Your task to perform on an android device: toggle show notifications on the lock screen Image 0: 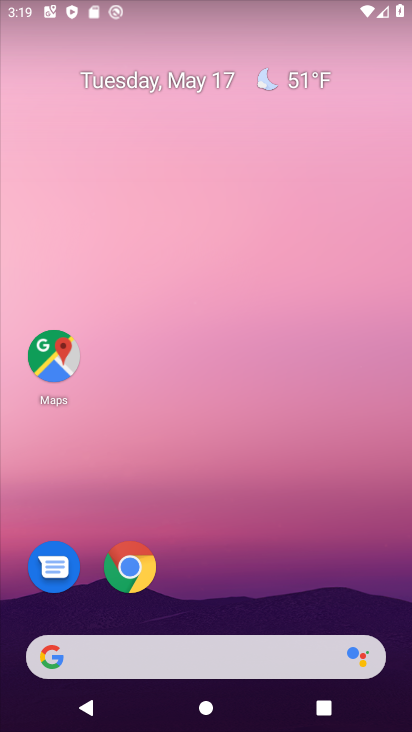
Step 0: drag from (189, 637) to (229, 96)
Your task to perform on an android device: toggle show notifications on the lock screen Image 1: 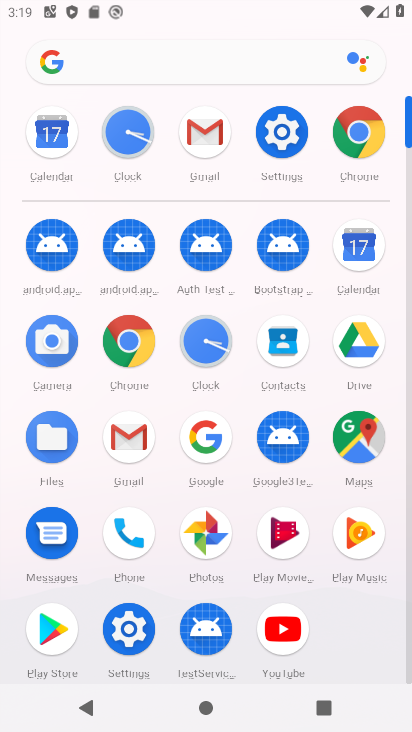
Step 1: click (276, 125)
Your task to perform on an android device: toggle show notifications on the lock screen Image 2: 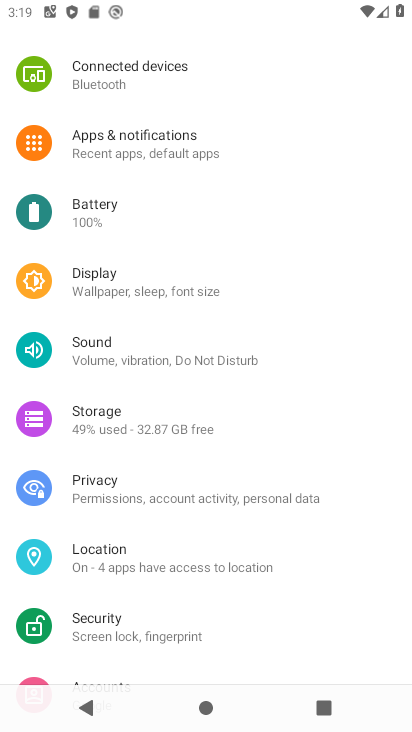
Step 2: click (118, 158)
Your task to perform on an android device: toggle show notifications on the lock screen Image 3: 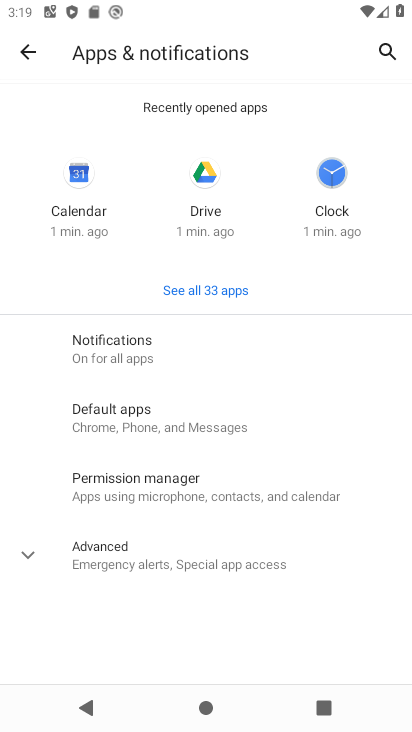
Step 3: click (82, 553)
Your task to perform on an android device: toggle show notifications on the lock screen Image 4: 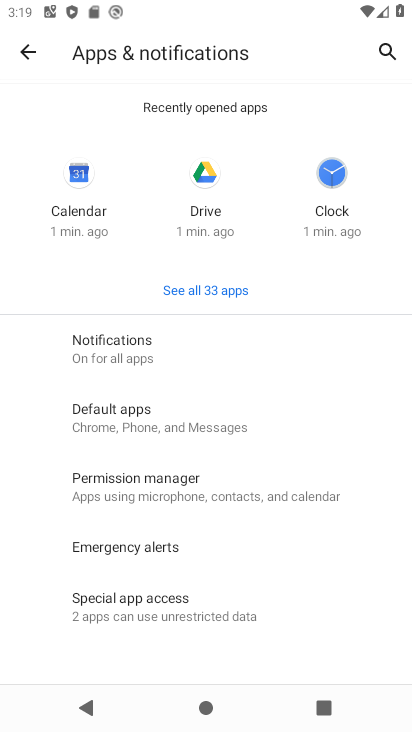
Step 4: drag from (189, 569) to (136, 362)
Your task to perform on an android device: toggle show notifications on the lock screen Image 5: 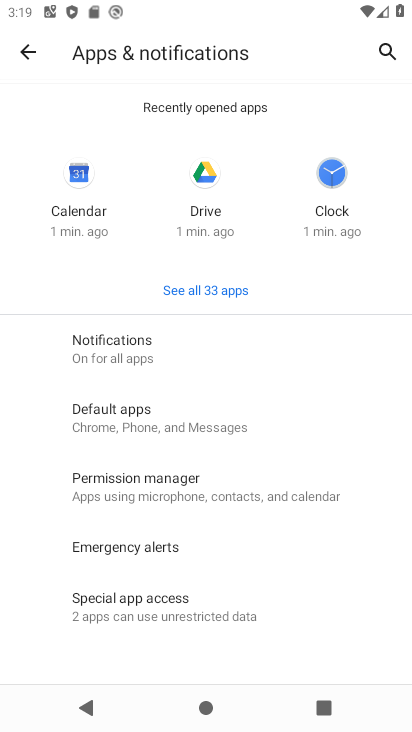
Step 5: click (134, 365)
Your task to perform on an android device: toggle show notifications on the lock screen Image 6: 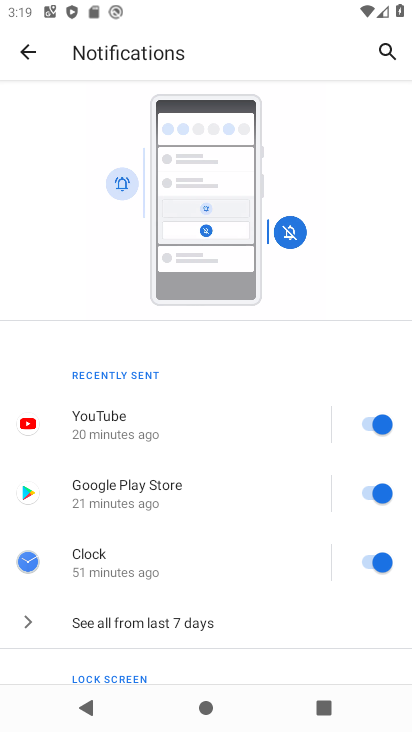
Step 6: drag from (176, 617) to (139, 164)
Your task to perform on an android device: toggle show notifications on the lock screen Image 7: 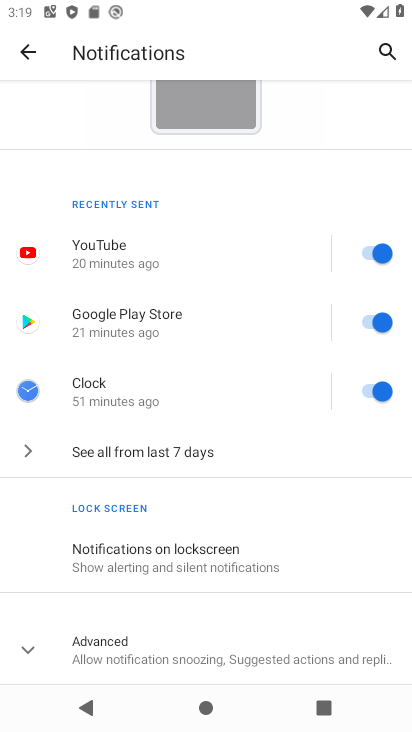
Step 7: click (179, 571)
Your task to perform on an android device: toggle show notifications on the lock screen Image 8: 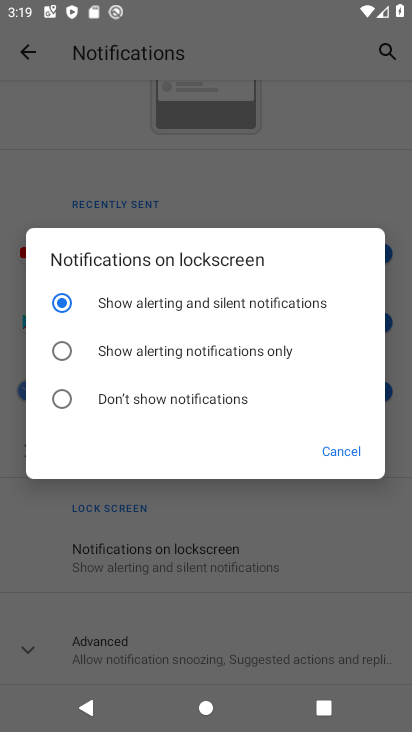
Step 8: drag from (221, 309) to (190, 360)
Your task to perform on an android device: toggle show notifications on the lock screen Image 9: 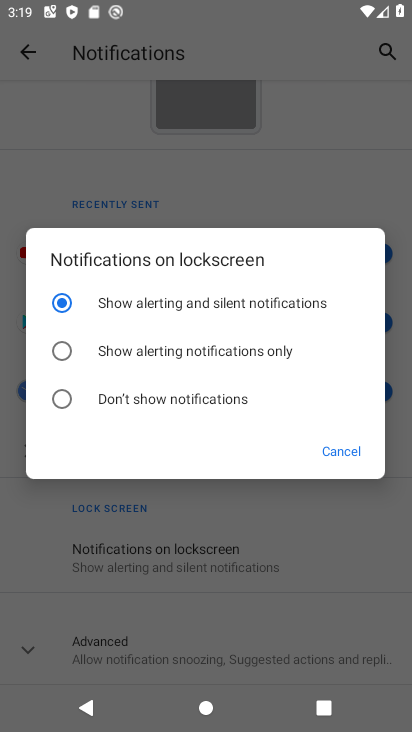
Step 9: click (146, 350)
Your task to perform on an android device: toggle show notifications on the lock screen Image 10: 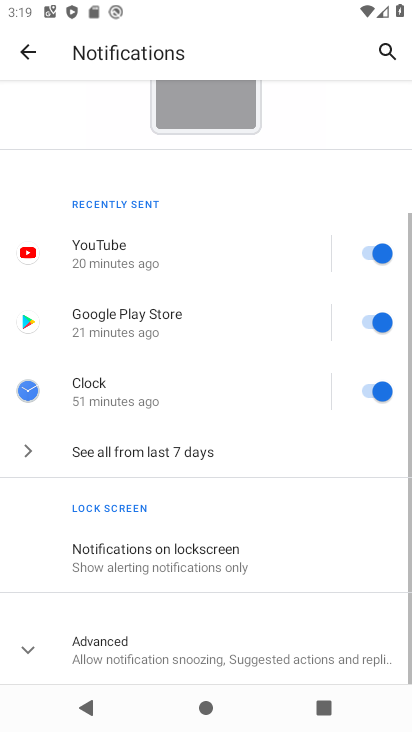
Step 10: task complete